Your task to perform on an android device: Is it going to rain this weekend? Image 0: 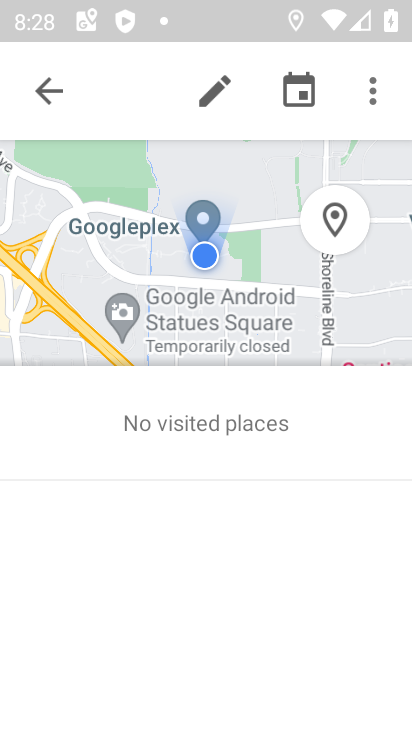
Step 0: press home button
Your task to perform on an android device: Is it going to rain this weekend? Image 1: 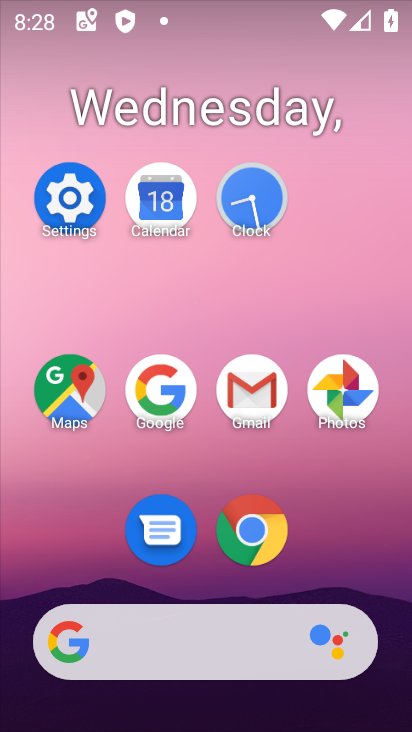
Step 1: click (154, 407)
Your task to perform on an android device: Is it going to rain this weekend? Image 2: 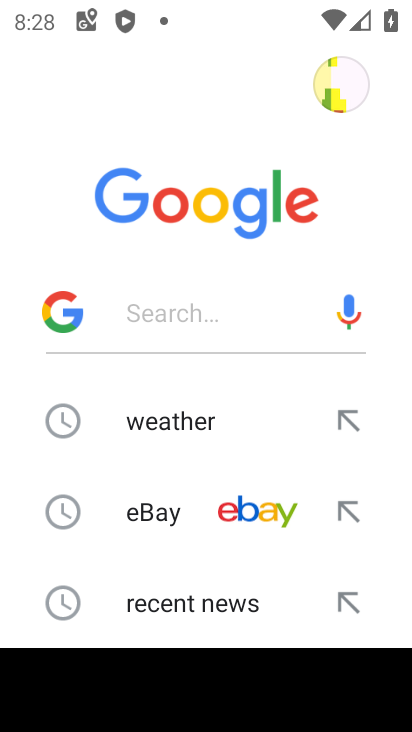
Step 2: click (158, 441)
Your task to perform on an android device: Is it going to rain this weekend? Image 3: 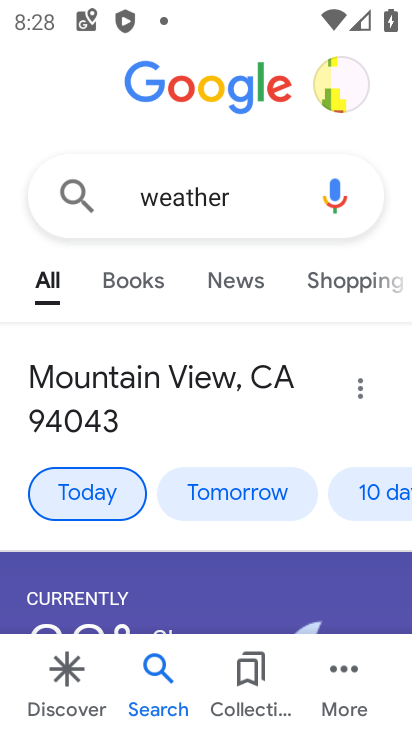
Step 3: click (204, 486)
Your task to perform on an android device: Is it going to rain this weekend? Image 4: 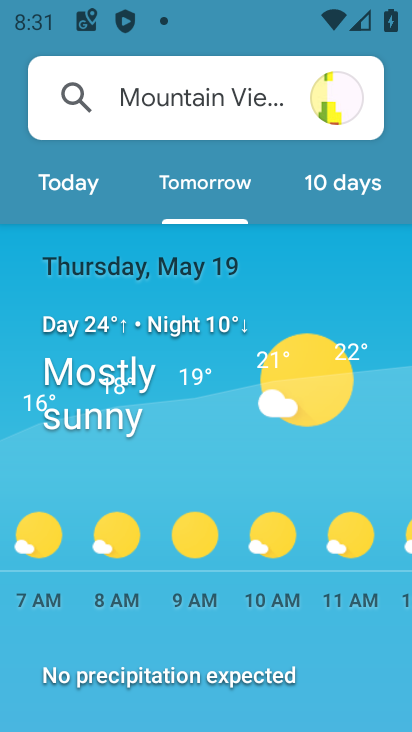
Step 4: click (355, 199)
Your task to perform on an android device: Is it going to rain this weekend? Image 5: 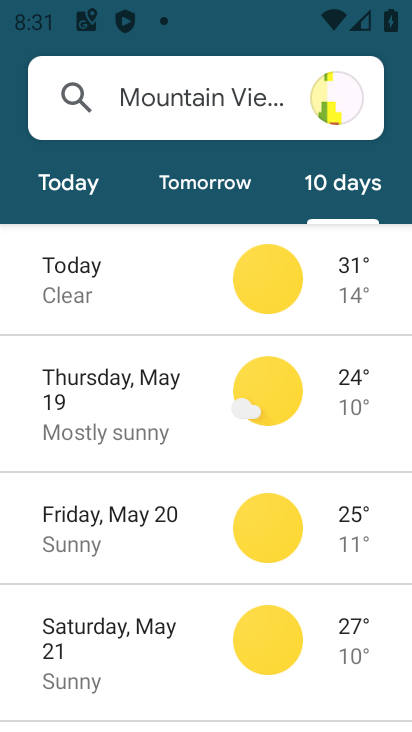
Step 5: click (133, 629)
Your task to perform on an android device: Is it going to rain this weekend? Image 6: 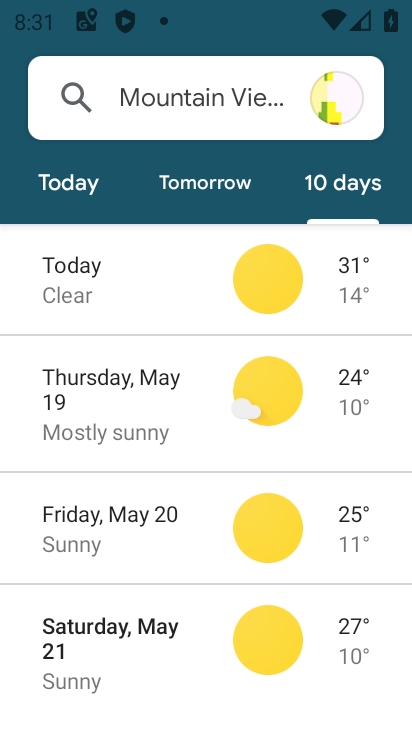
Step 6: click (102, 671)
Your task to perform on an android device: Is it going to rain this weekend? Image 7: 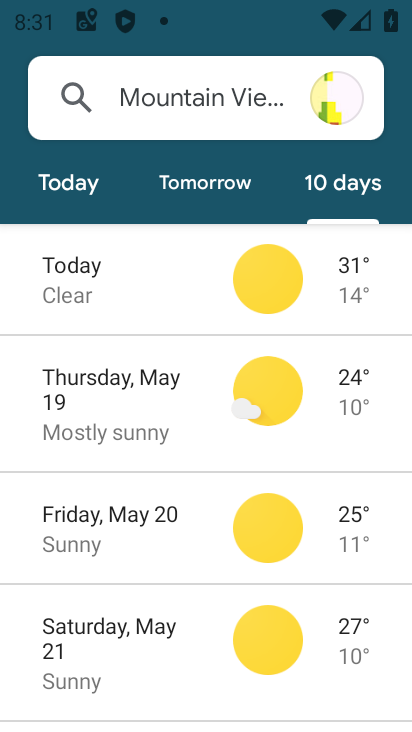
Step 7: task complete